Your task to perform on an android device: toggle airplane mode Image 0: 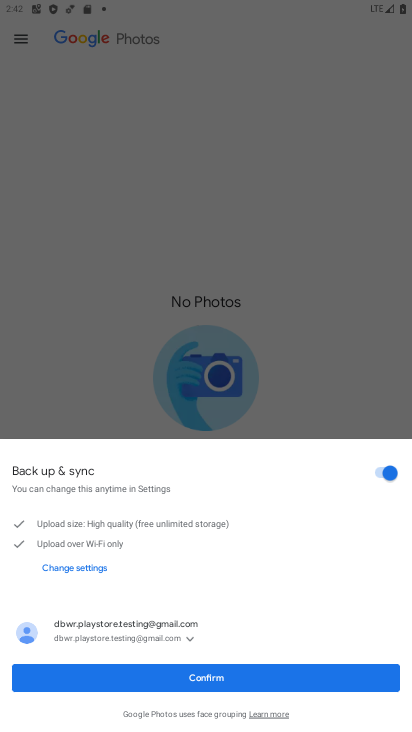
Step 0: press home button
Your task to perform on an android device: toggle airplane mode Image 1: 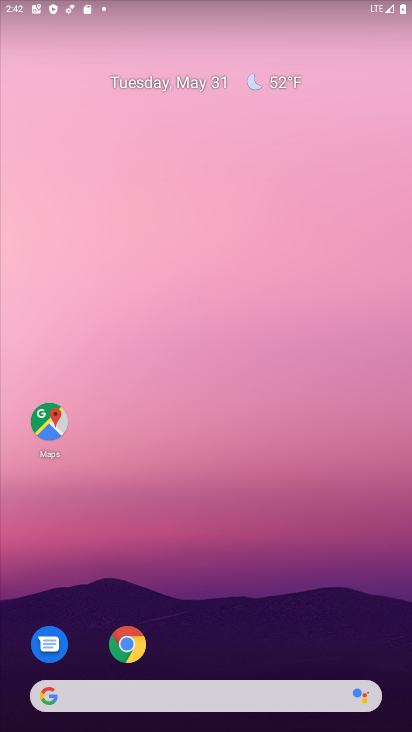
Step 1: drag from (193, 8) to (215, 600)
Your task to perform on an android device: toggle airplane mode Image 2: 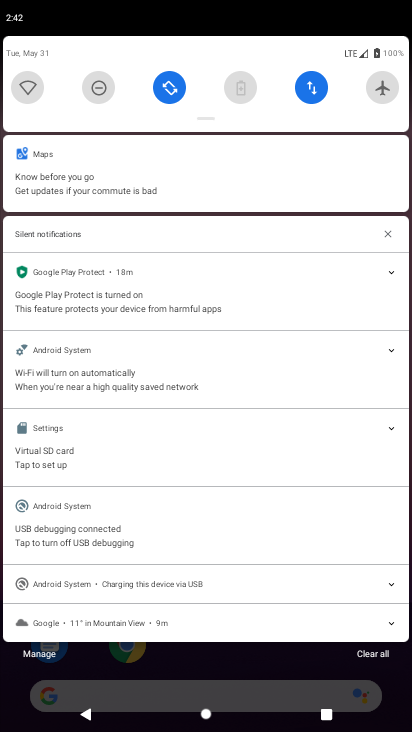
Step 2: click (386, 94)
Your task to perform on an android device: toggle airplane mode Image 3: 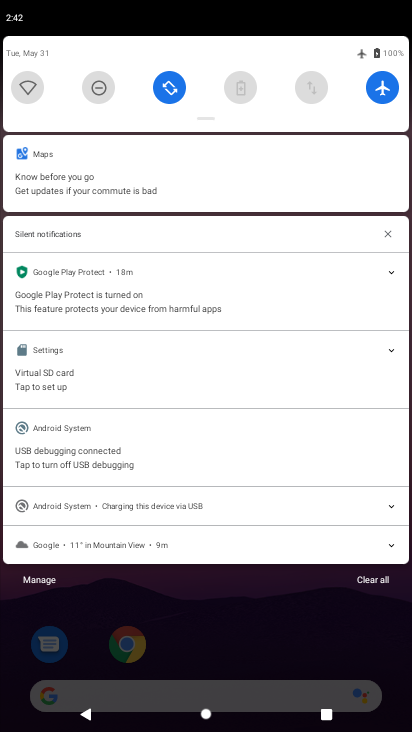
Step 3: task complete